Your task to perform on an android device: toggle show notifications on the lock screen Image 0: 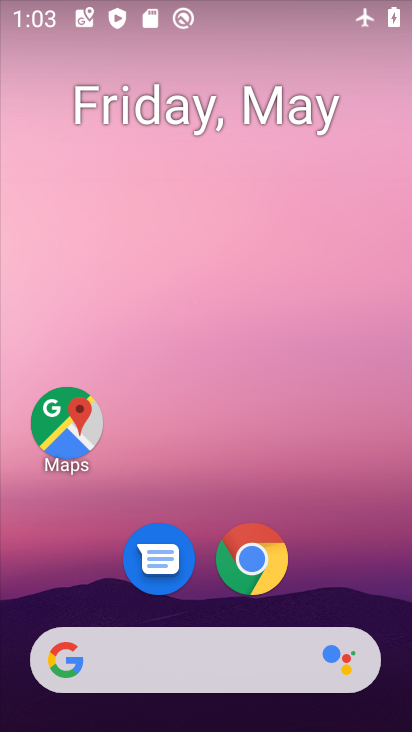
Step 0: drag from (397, 575) to (198, 167)
Your task to perform on an android device: toggle show notifications on the lock screen Image 1: 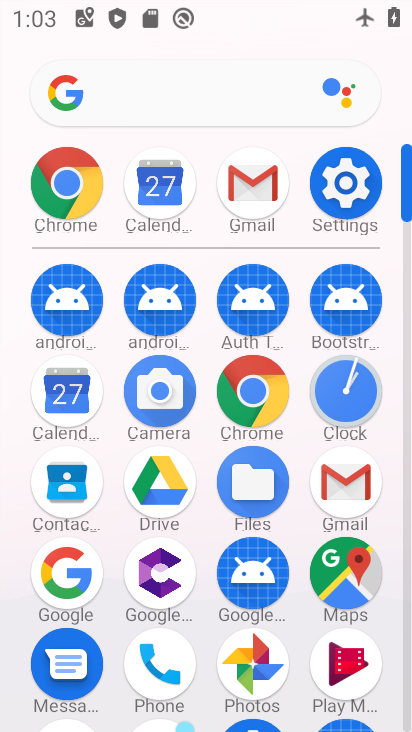
Step 1: click (364, 177)
Your task to perform on an android device: toggle show notifications on the lock screen Image 2: 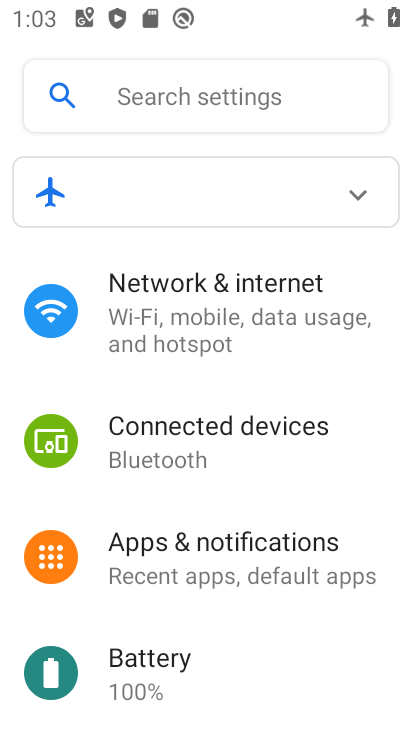
Step 2: click (242, 540)
Your task to perform on an android device: toggle show notifications on the lock screen Image 3: 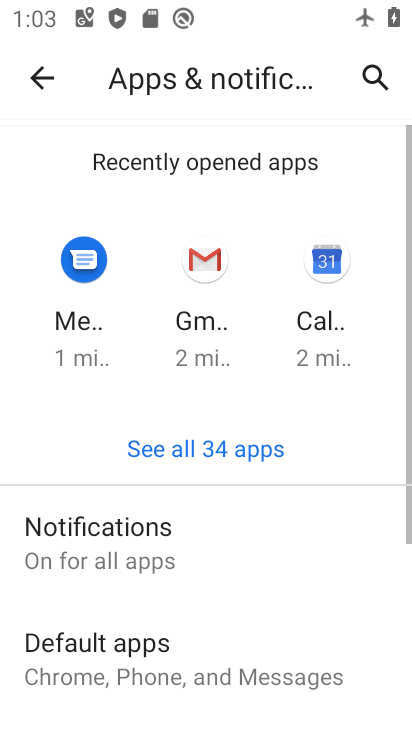
Step 3: click (242, 541)
Your task to perform on an android device: toggle show notifications on the lock screen Image 4: 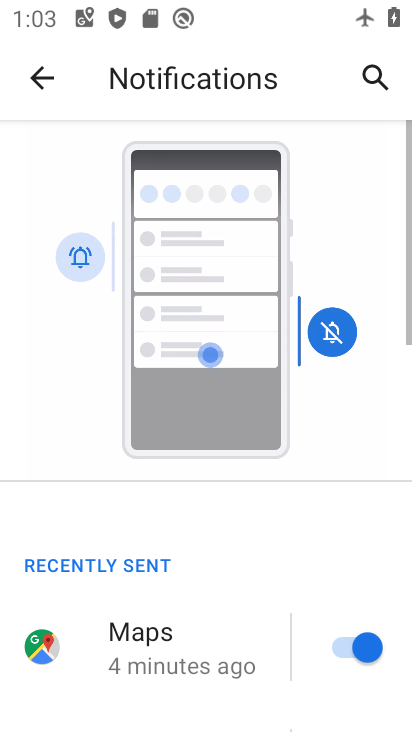
Step 4: drag from (241, 540) to (168, 5)
Your task to perform on an android device: toggle show notifications on the lock screen Image 5: 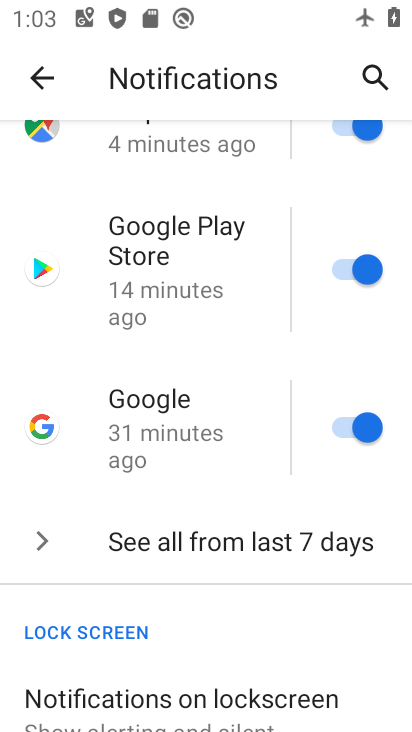
Step 5: click (176, 694)
Your task to perform on an android device: toggle show notifications on the lock screen Image 6: 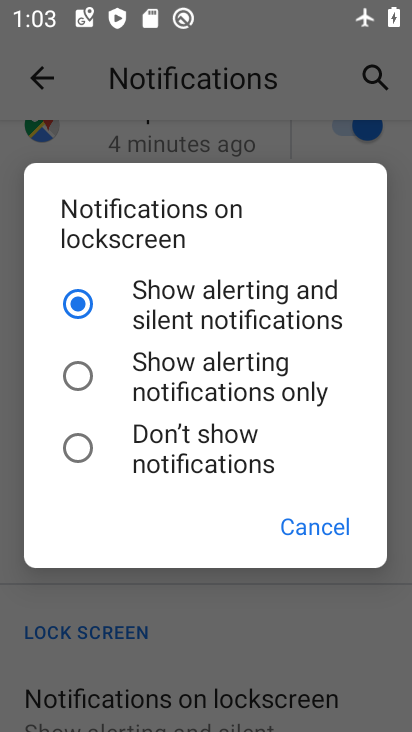
Step 6: click (226, 381)
Your task to perform on an android device: toggle show notifications on the lock screen Image 7: 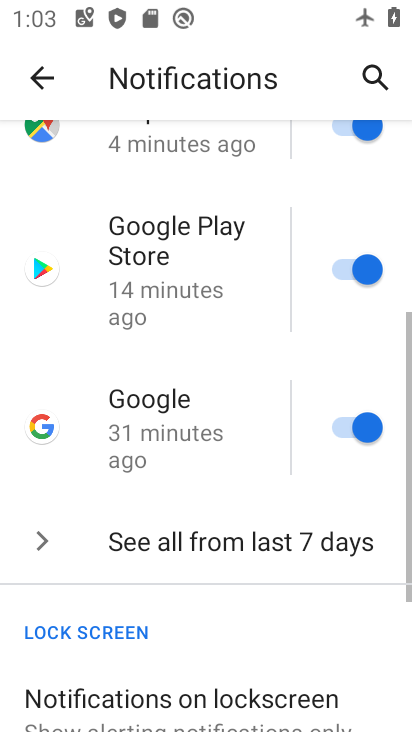
Step 7: task complete